Your task to perform on an android device: see tabs open on other devices in the chrome app Image 0: 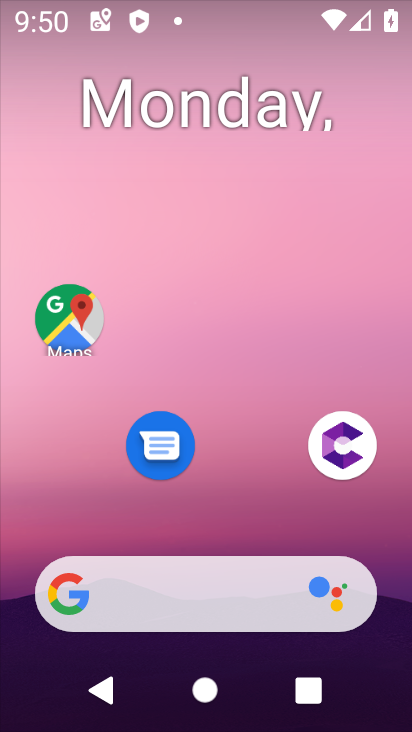
Step 0: press home button
Your task to perform on an android device: see tabs open on other devices in the chrome app Image 1: 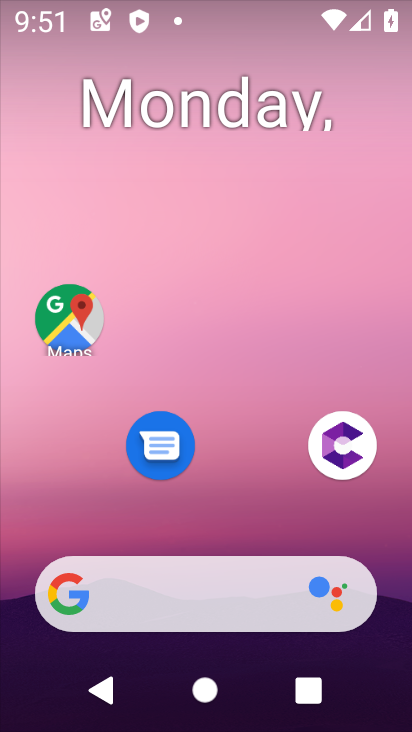
Step 1: drag from (237, 526) to (196, 31)
Your task to perform on an android device: see tabs open on other devices in the chrome app Image 2: 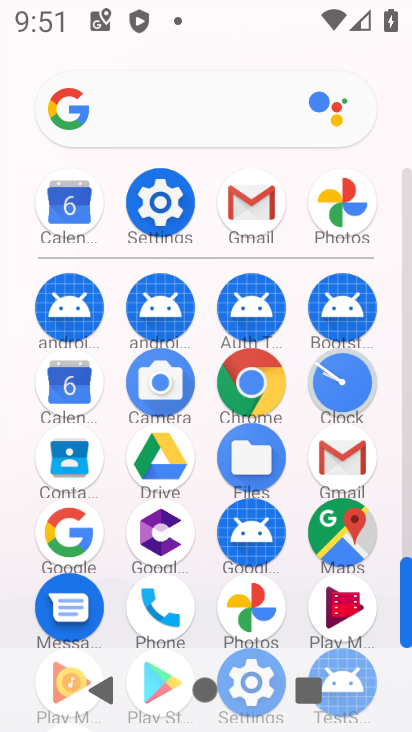
Step 2: click (247, 394)
Your task to perform on an android device: see tabs open on other devices in the chrome app Image 3: 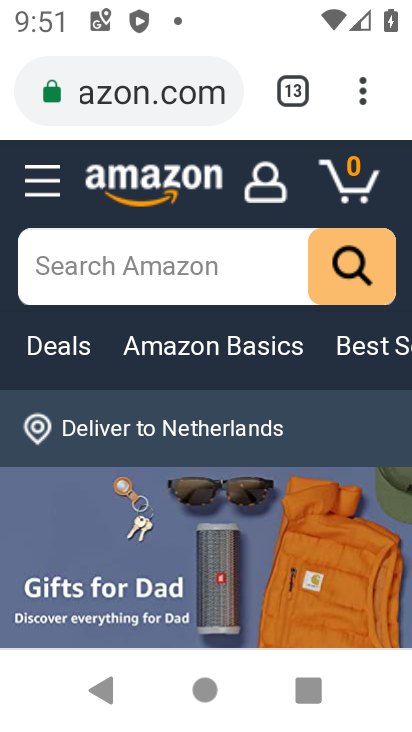
Step 3: task complete